Your task to perform on an android device: Show me popular games on the Play Store Image 0: 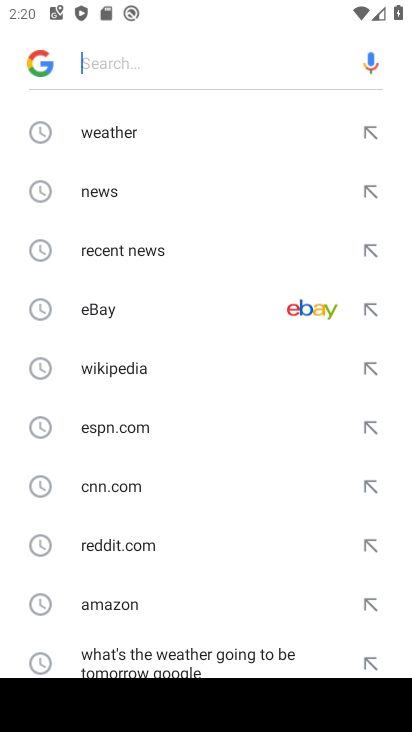
Step 0: press home button
Your task to perform on an android device: Show me popular games on the Play Store Image 1: 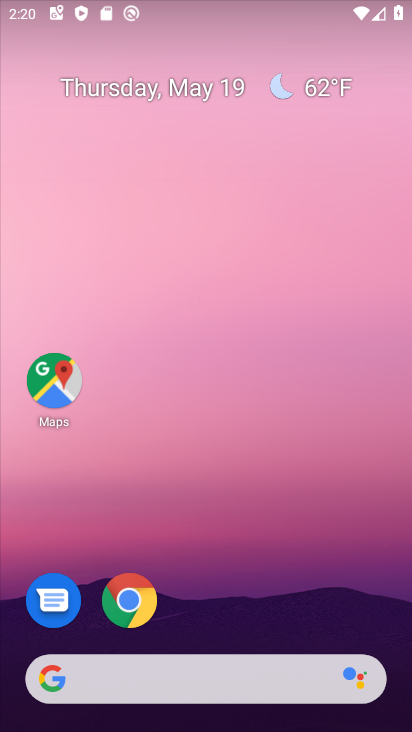
Step 1: drag from (7, 507) to (233, 119)
Your task to perform on an android device: Show me popular games on the Play Store Image 2: 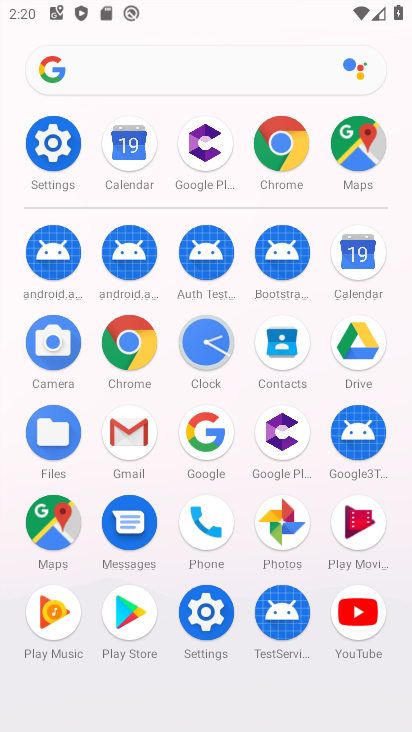
Step 2: click (132, 612)
Your task to perform on an android device: Show me popular games on the Play Store Image 3: 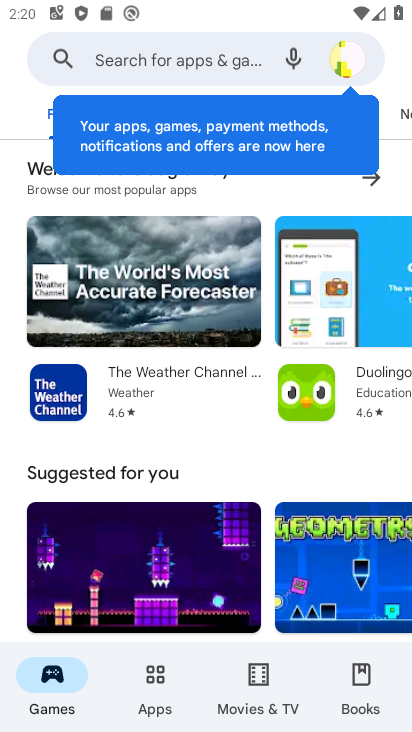
Step 3: click (149, 698)
Your task to perform on an android device: Show me popular games on the Play Store Image 4: 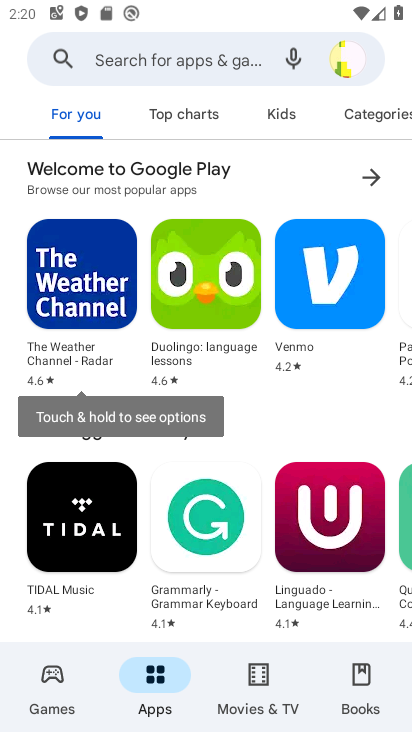
Step 4: task complete